Your task to perform on an android device: check android version Image 0: 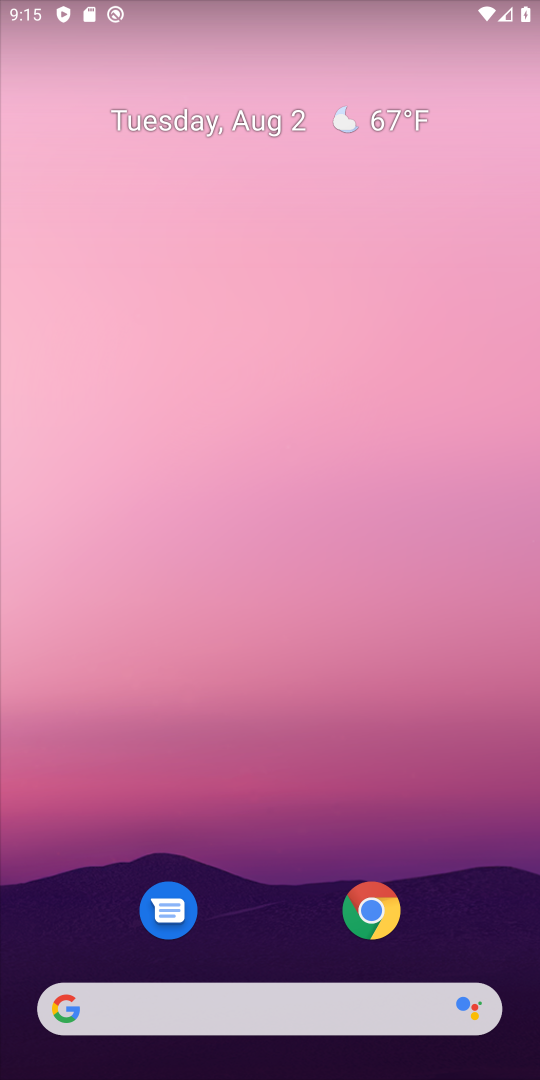
Step 0: drag from (307, 934) to (401, 199)
Your task to perform on an android device: check android version Image 1: 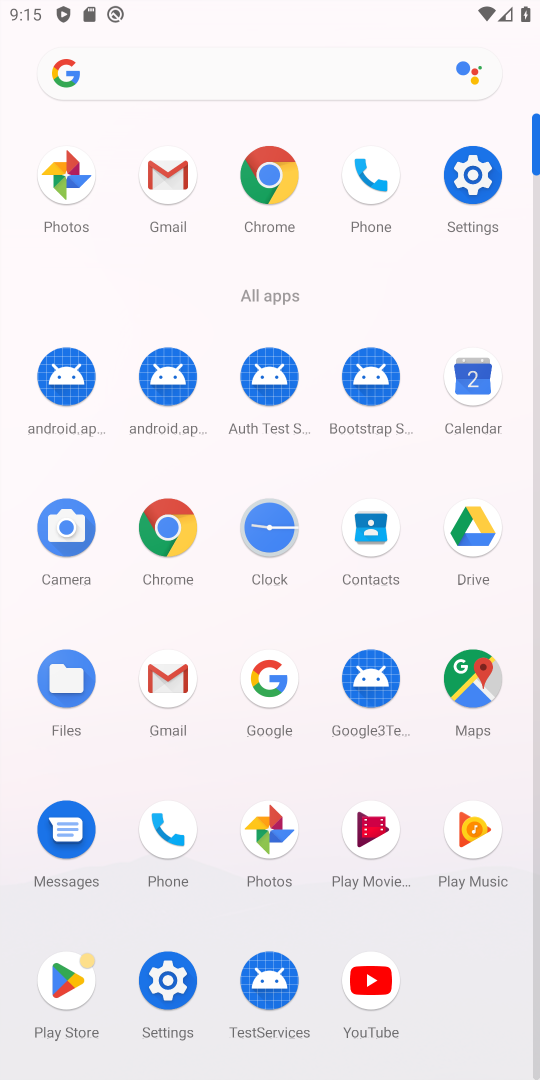
Step 1: click (477, 157)
Your task to perform on an android device: check android version Image 2: 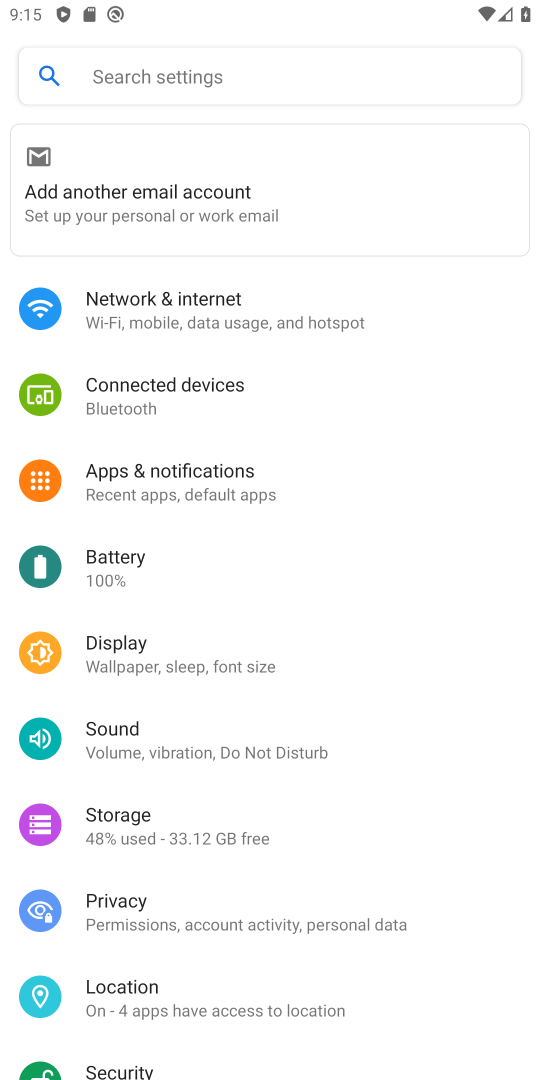
Step 2: drag from (213, 993) to (340, 101)
Your task to perform on an android device: check android version Image 3: 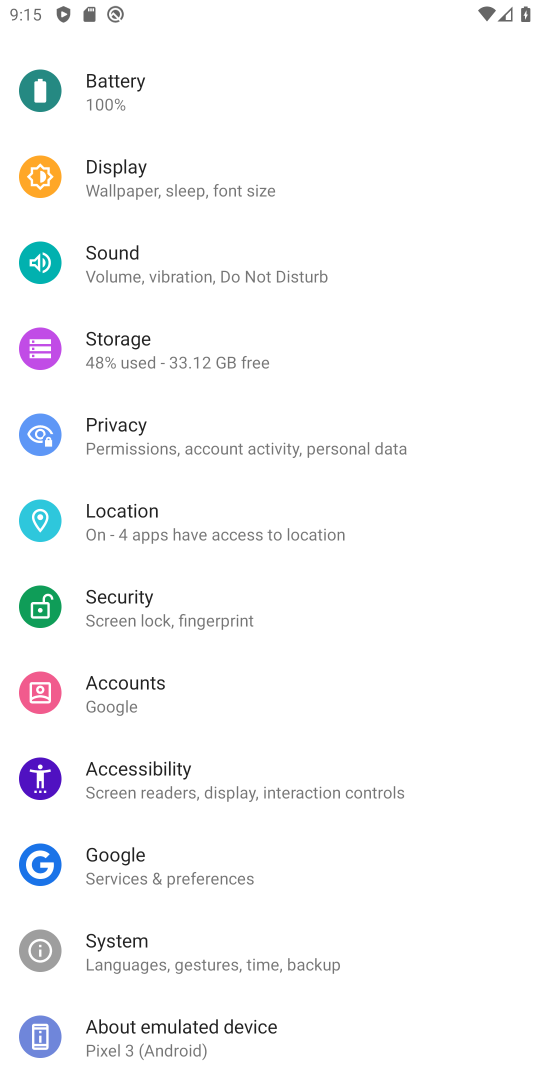
Step 3: click (170, 1017)
Your task to perform on an android device: check android version Image 4: 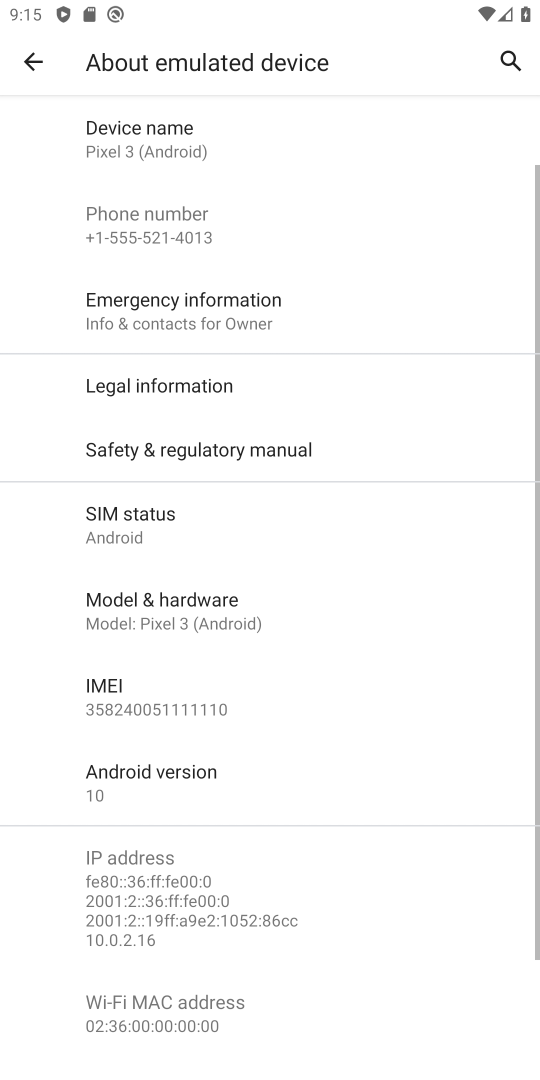
Step 4: click (172, 799)
Your task to perform on an android device: check android version Image 5: 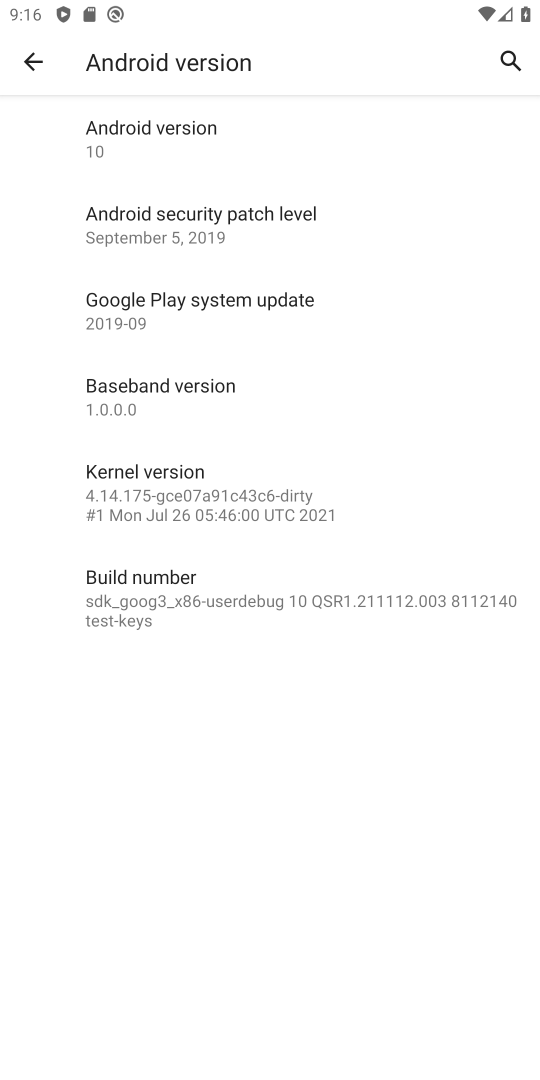
Step 5: task complete